Your task to perform on an android device: What's the weather? Image 0: 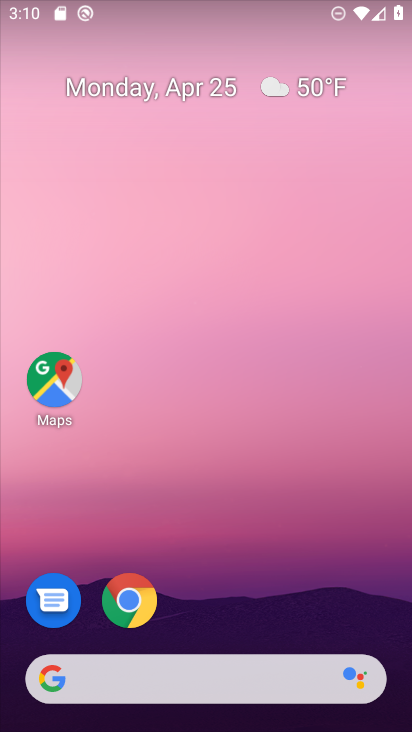
Step 0: click (189, 685)
Your task to perform on an android device: What's the weather? Image 1: 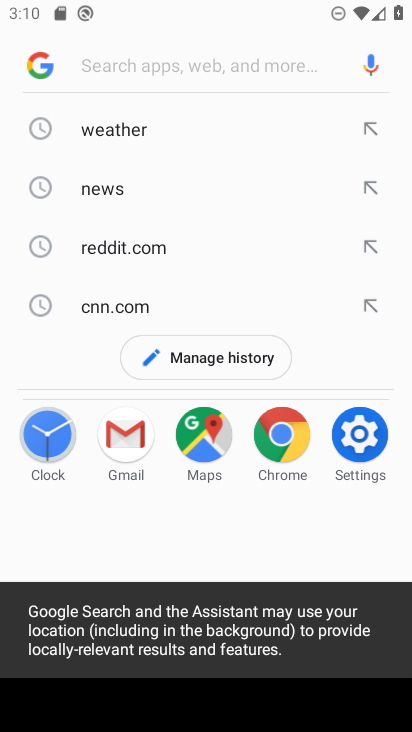
Step 1: click (100, 113)
Your task to perform on an android device: What's the weather? Image 2: 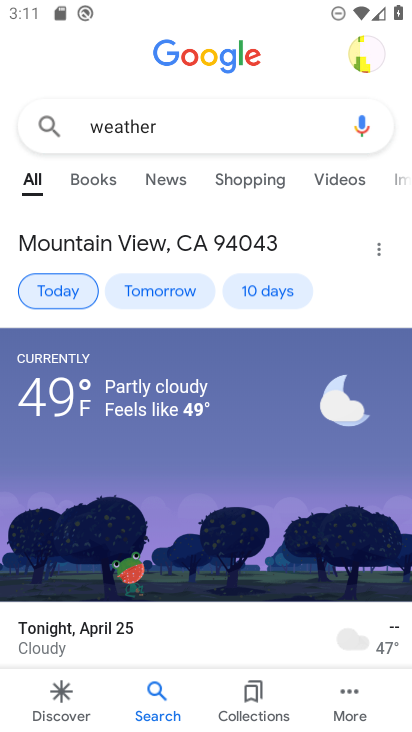
Step 2: task complete